Your task to perform on an android device: Open the web browser Image 0: 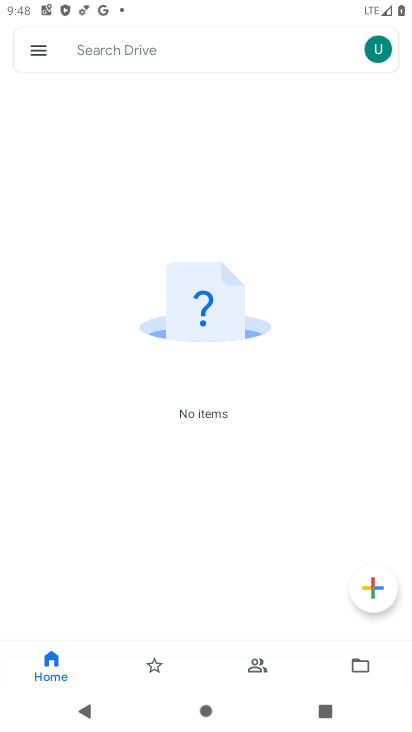
Step 0: press home button
Your task to perform on an android device: Open the web browser Image 1: 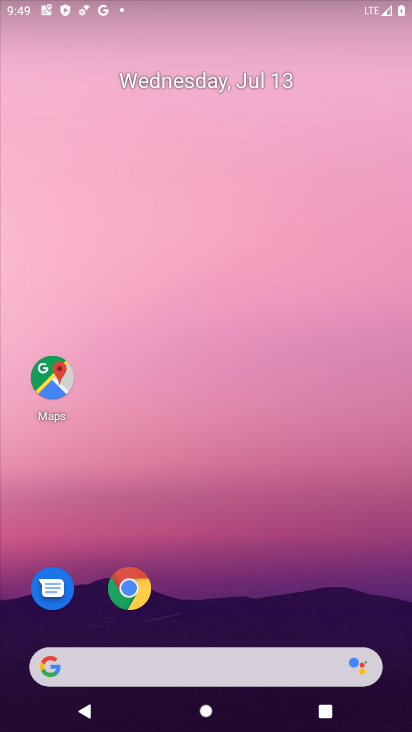
Step 1: drag from (194, 584) to (196, 92)
Your task to perform on an android device: Open the web browser Image 2: 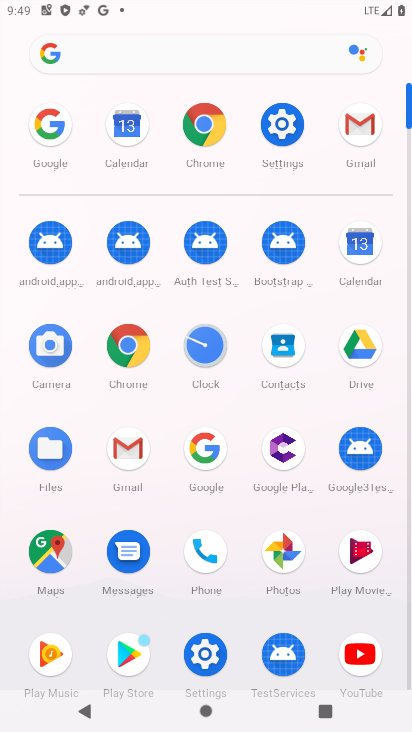
Step 2: click (205, 452)
Your task to perform on an android device: Open the web browser Image 3: 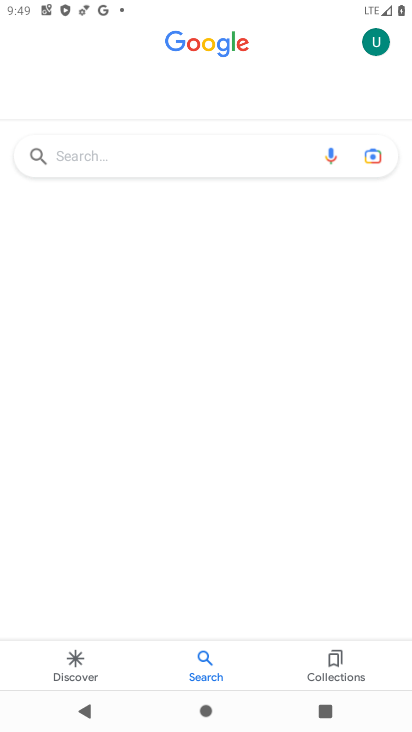
Step 3: task complete